Your task to perform on an android device: change the clock display to analog Image 0: 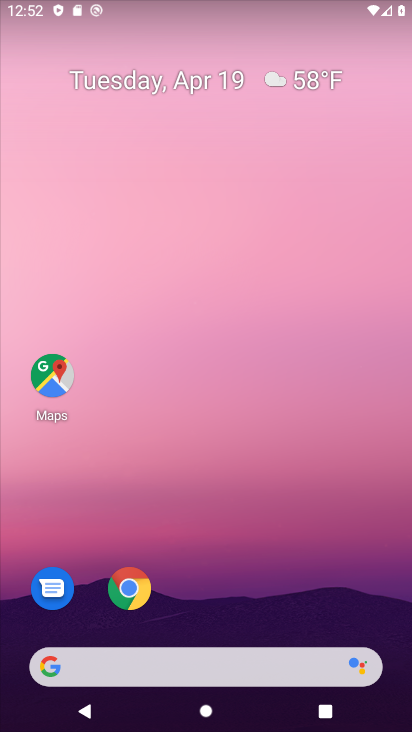
Step 0: drag from (209, 626) to (217, 232)
Your task to perform on an android device: change the clock display to analog Image 1: 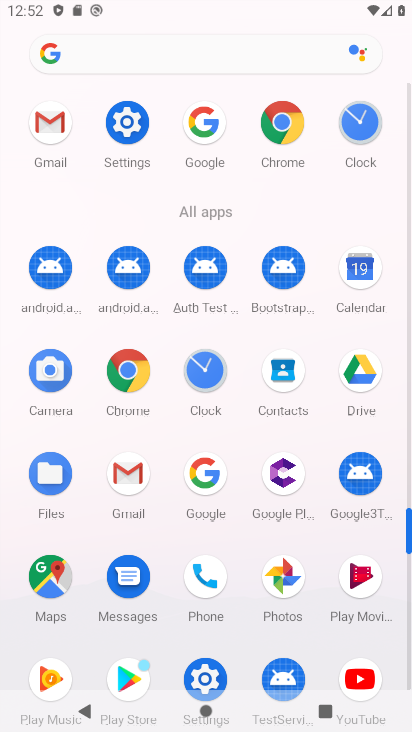
Step 1: click (357, 130)
Your task to perform on an android device: change the clock display to analog Image 2: 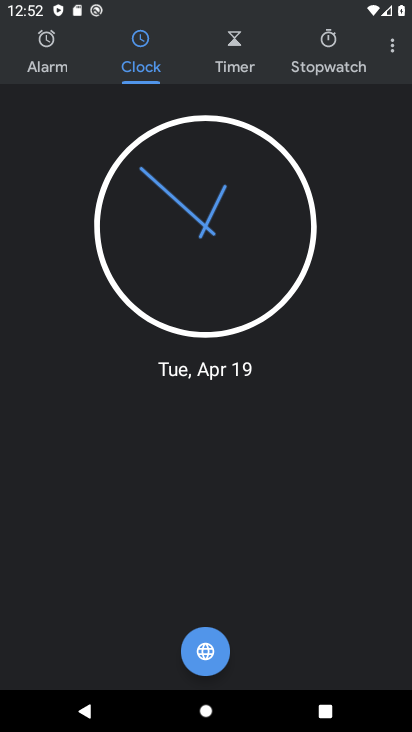
Step 2: click (392, 56)
Your task to perform on an android device: change the clock display to analog Image 3: 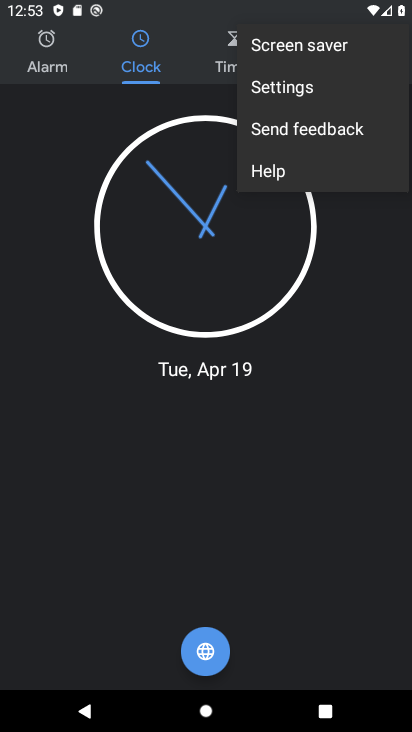
Step 3: click (327, 82)
Your task to perform on an android device: change the clock display to analog Image 4: 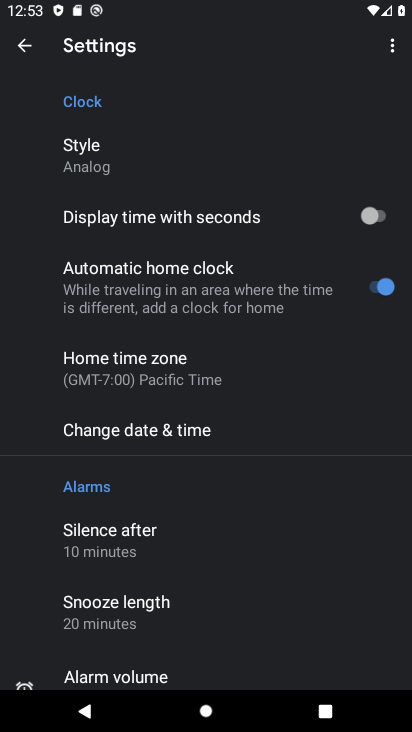
Step 4: task complete